Your task to perform on an android device: What is the recent news? Image 0: 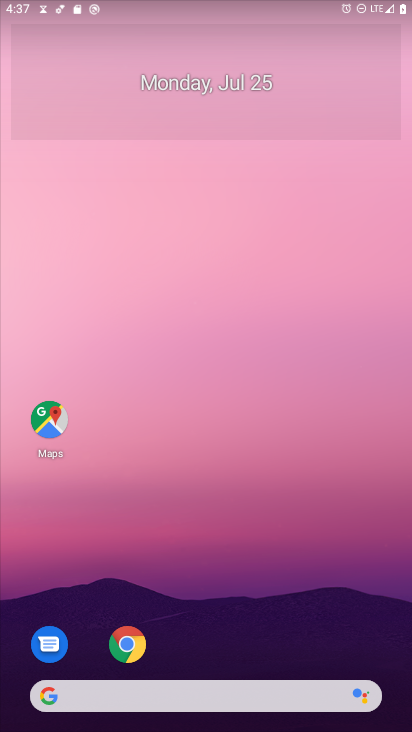
Step 0: press home button
Your task to perform on an android device: What is the recent news? Image 1: 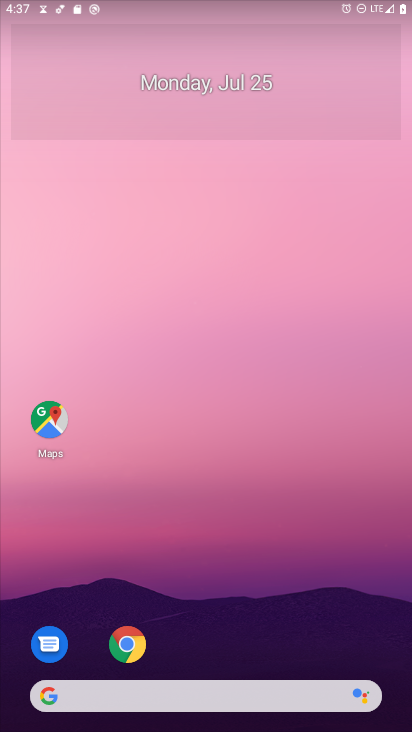
Step 1: click (46, 693)
Your task to perform on an android device: What is the recent news? Image 2: 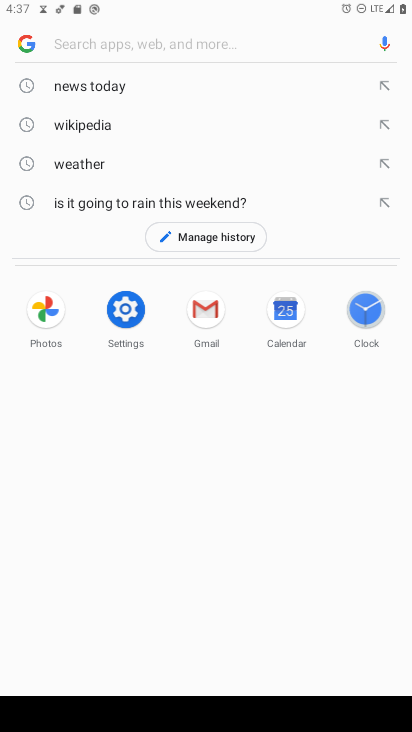
Step 2: type "recent news"
Your task to perform on an android device: What is the recent news? Image 3: 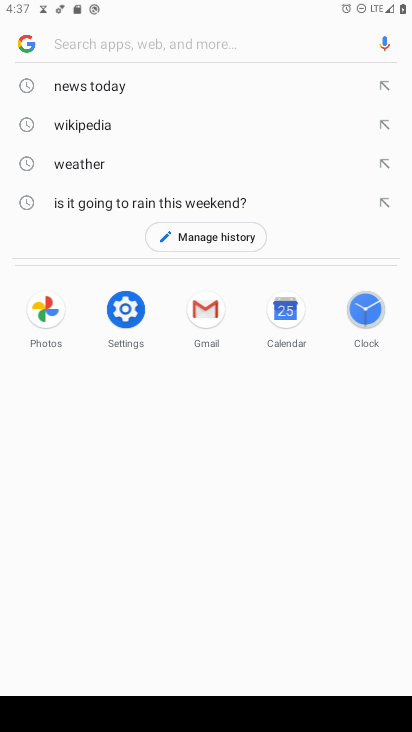
Step 3: click (77, 37)
Your task to perform on an android device: What is the recent news? Image 4: 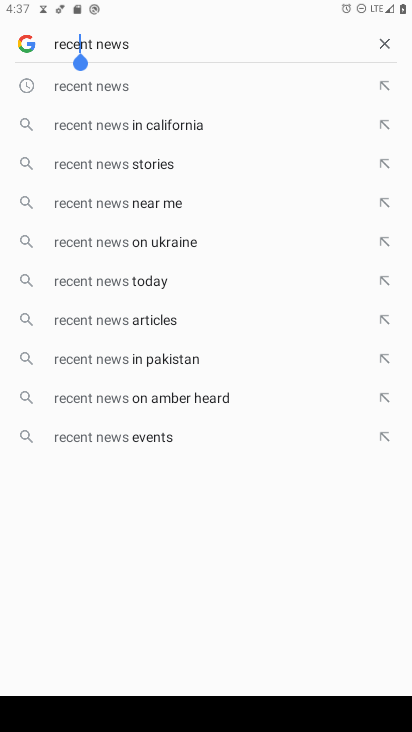
Step 4: press enter
Your task to perform on an android device: What is the recent news? Image 5: 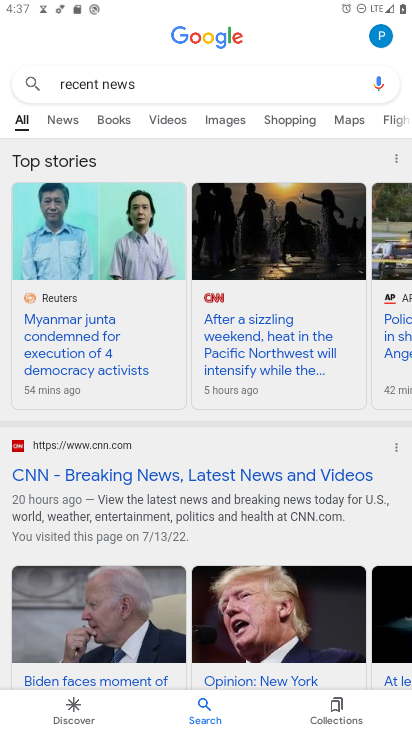
Step 5: task complete